Your task to perform on an android device: Open Google Maps Image 0: 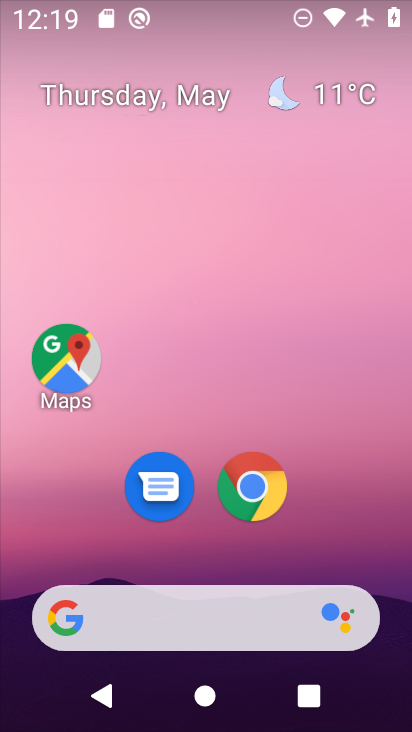
Step 0: drag from (368, 523) to (223, 64)
Your task to perform on an android device: Open Google Maps Image 1: 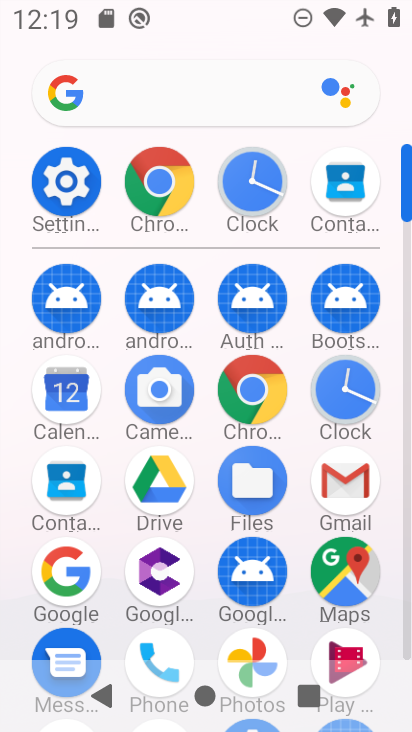
Step 1: click (345, 569)
Your task to perform on an android device: Open Google Maps Image 2: 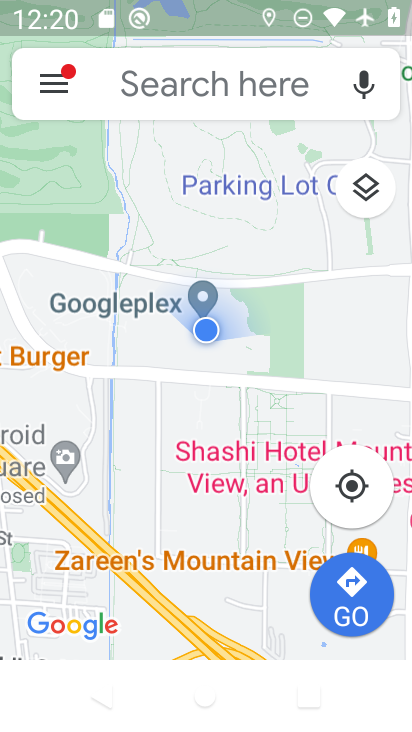
Step 2: task complete